Your task to perform on an android device: What's the weather going to be this weekend? Image 0: 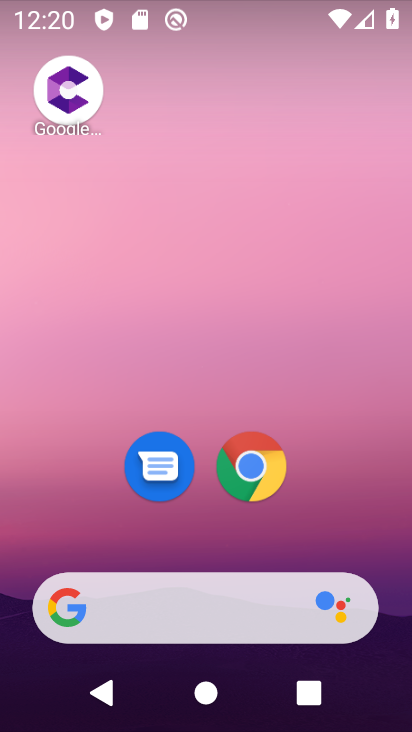
Step 0: drag from (6, 353) to (368, 276)
Your task to perform on an android device: What's the weather going to be this weekend? Image 1: 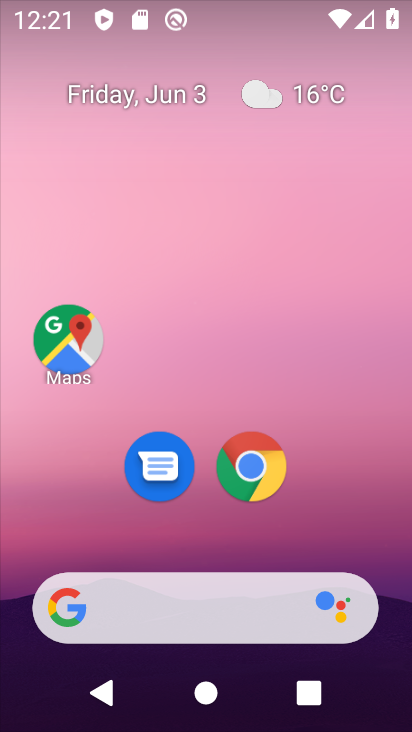
Step 1: click (300, 108)
Your task to perform on an android device: What's the weather going to be this weekend? Image 2: 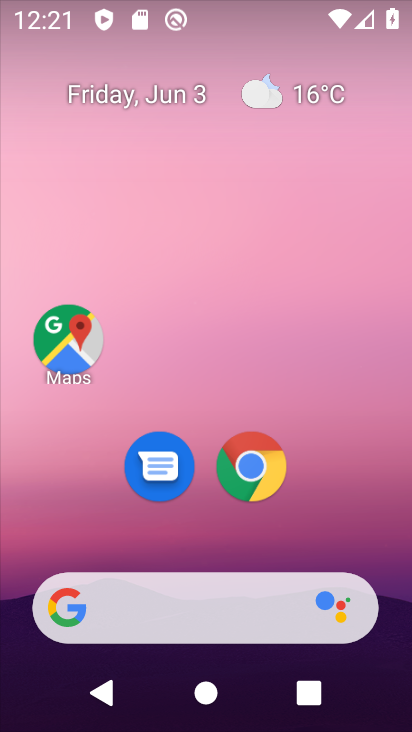
Step 2: click (302, 108)
Your task to perform on an android device: What's the weather going to be this weekend? Image 3: 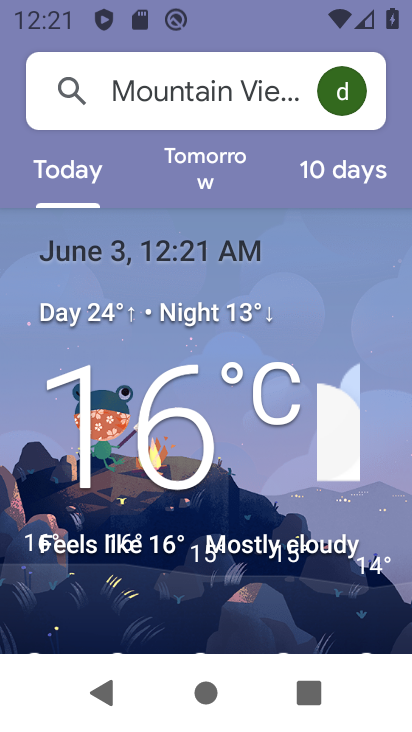
Step 3: click (335, 193)
Your task to perform on an android device: What's the weather going to be this weekend? Image 4: 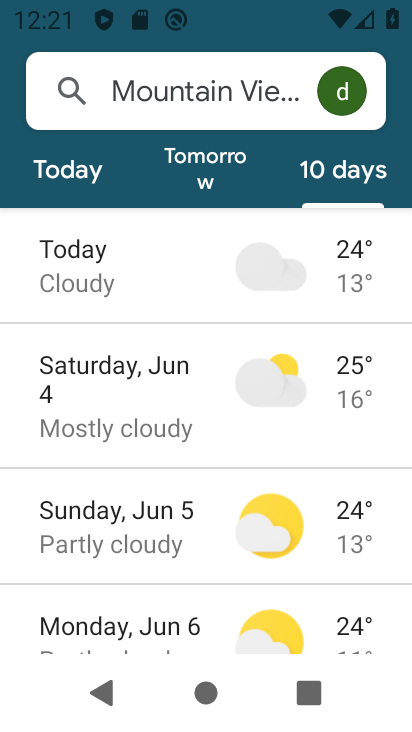
Step 4: task complete